Your task to perform on an android device: move an email to a new category in the gmail app Image 0: 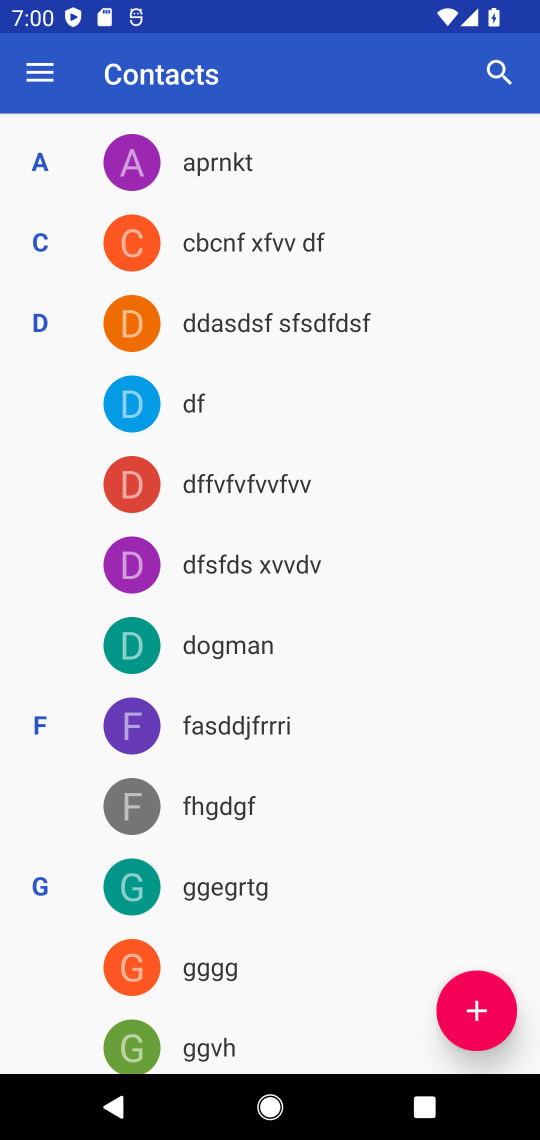
Step 0: press home button
Your task to perform on an android device: move an email to a new category in the gmail app Image 1: 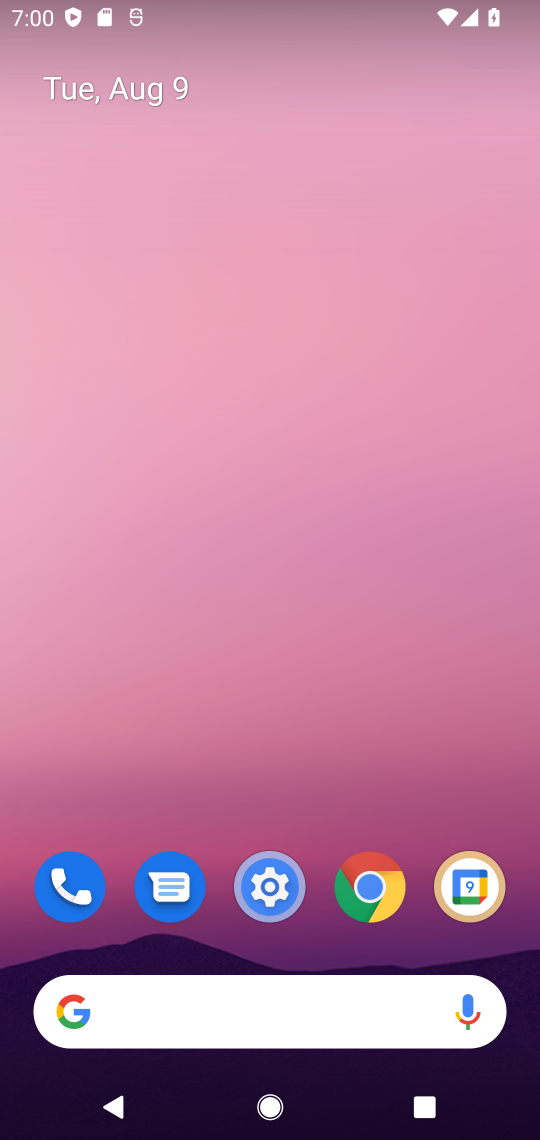
Step 1: drag from (278, 658) to (350, 17)
Your task to perform on an android device: move an email to a new category in the gmail app Image 2: 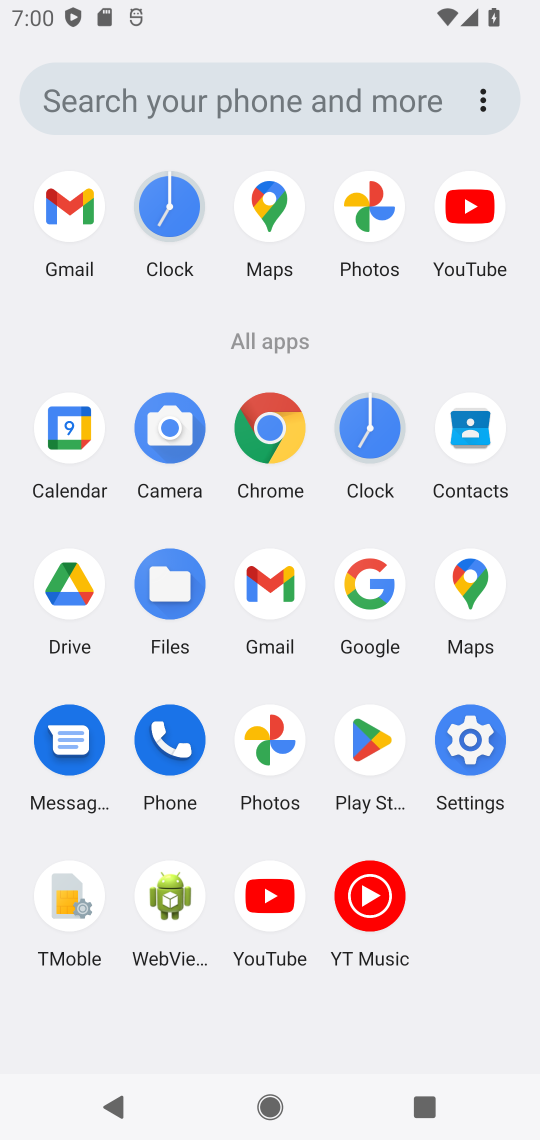
Step 2: click (69, 204)
Your task to perform on an android device: move an email to a new category in the gmail app Image 3: 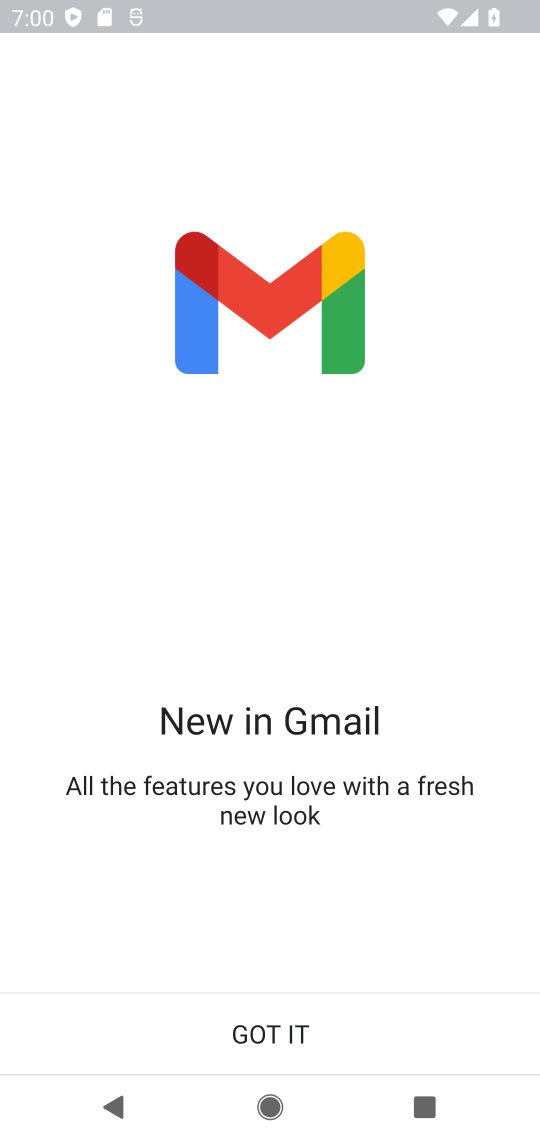
Step 3: click (278, 1016)
Your task to perform on an android device: move an email to a new category in the gmail app Image 4: 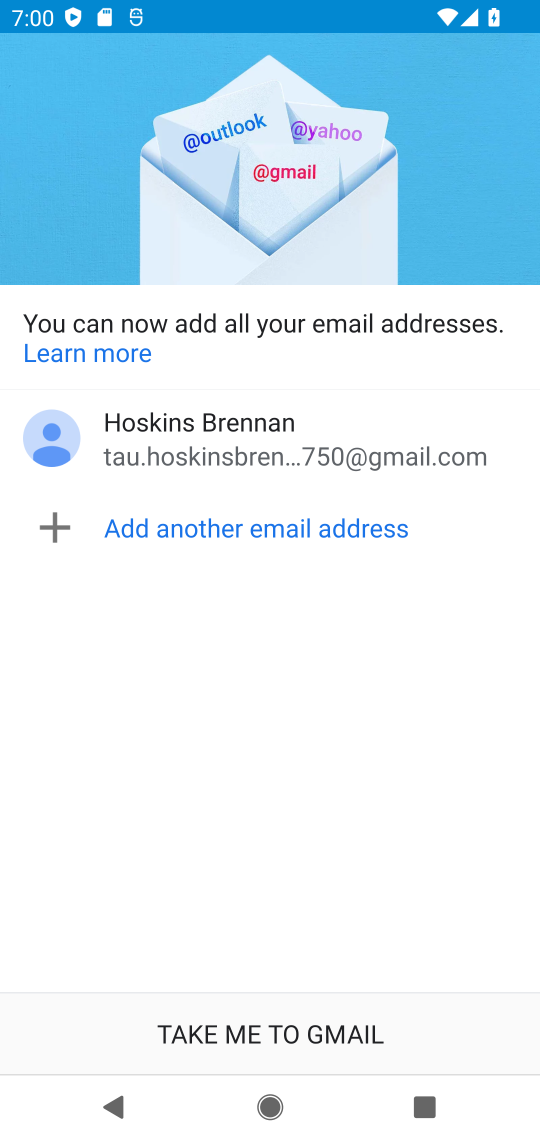
Step 4: click (282, 1025)
Your task to perform on an android device: move an email to a new category in the gmail app Image 5: 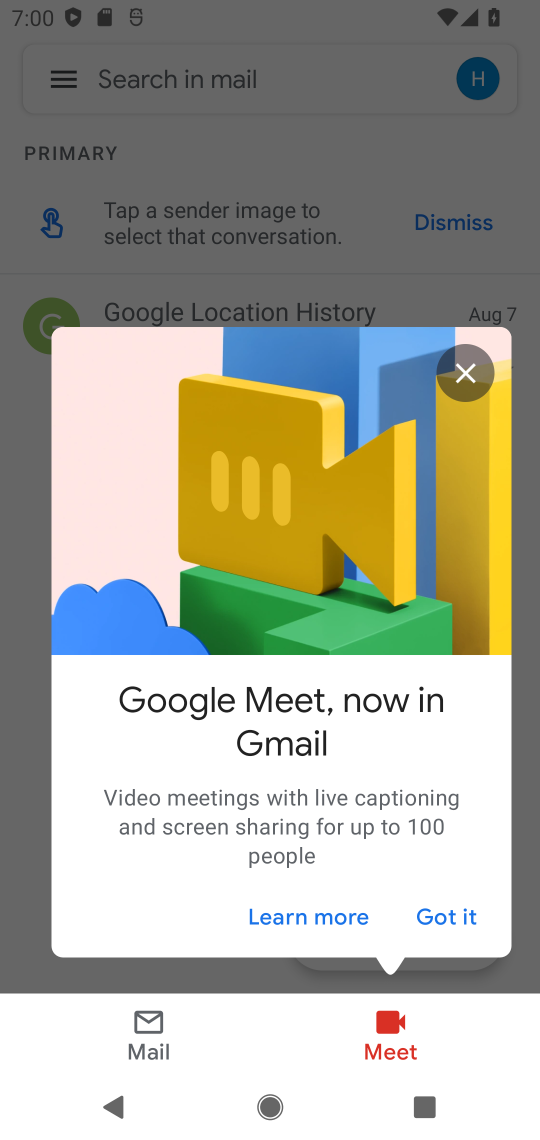
Step 5: click (428, 904)
Your task to perform on an android device: move an email to a new category in the gmail app Image 6: 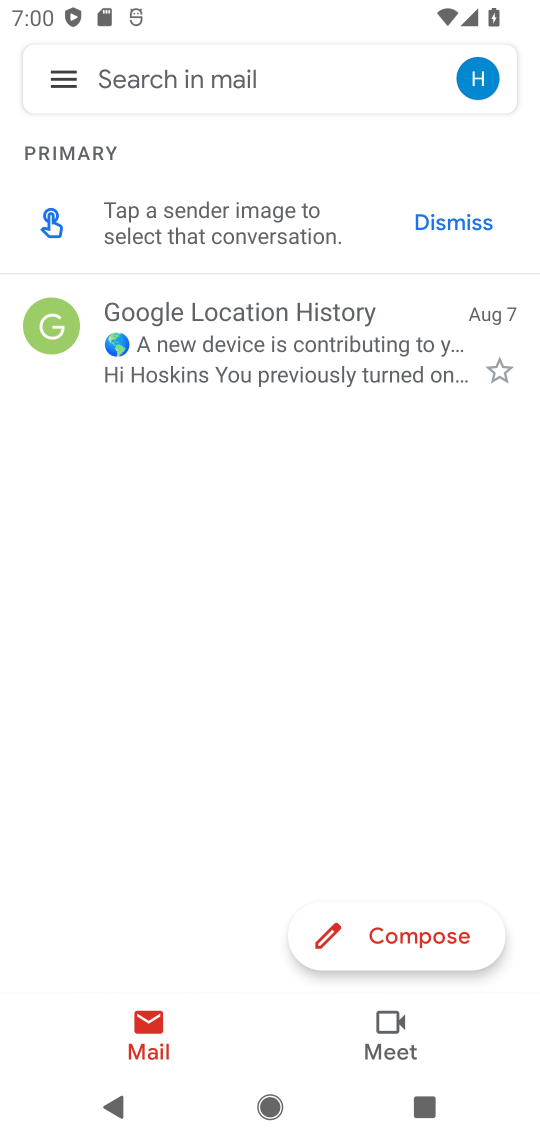
Step 6: click (267, 353)
Your task to perform on an android device: move an email to a new category in the gmail app Image 7: 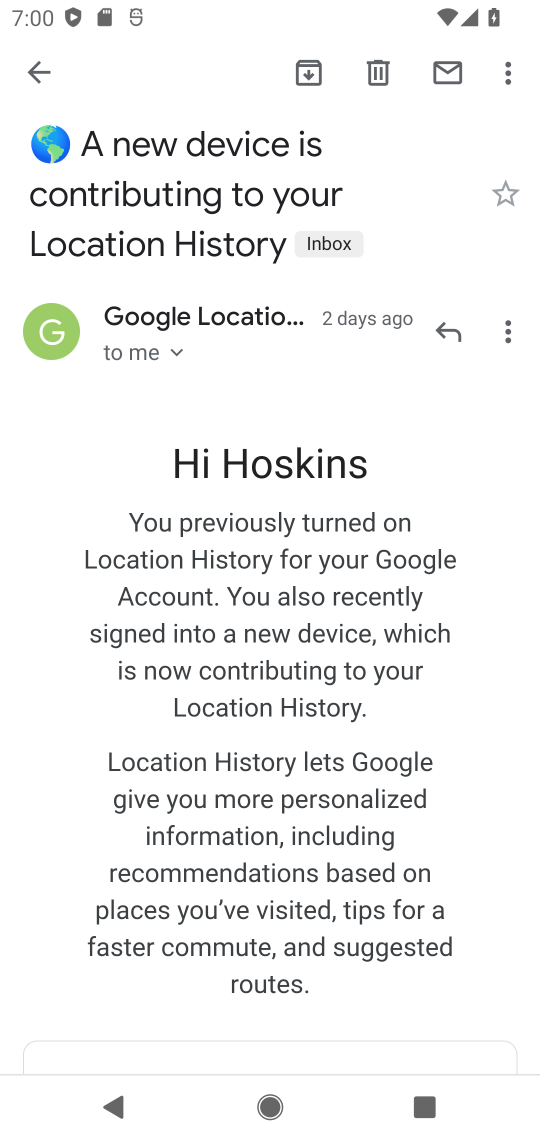
Step 7: click (512, 74)
Your task to perform on an android device: move an email to a new category in the gmail app Image 8: 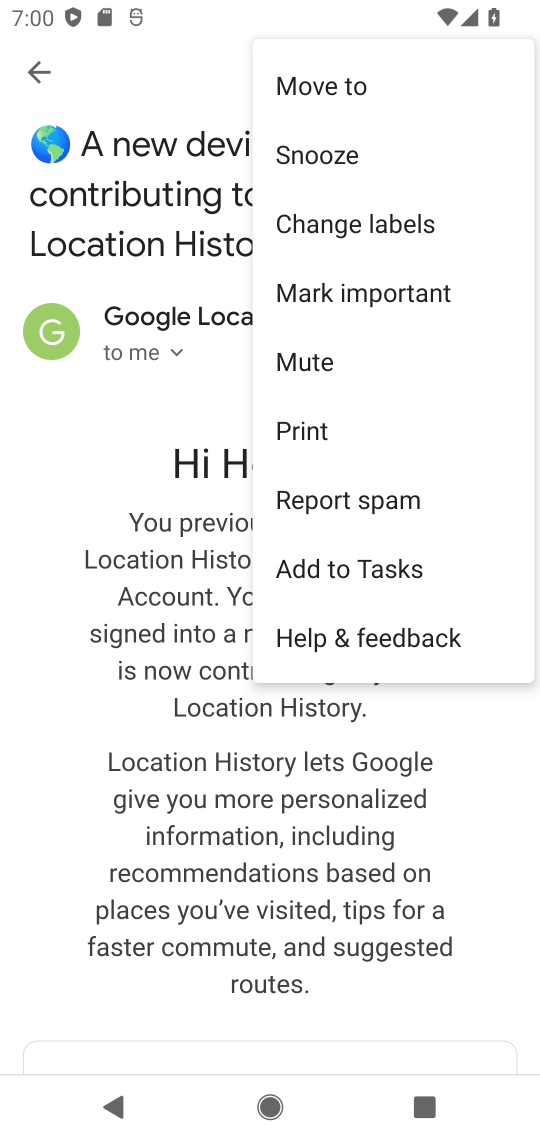
Step 8: click (506, 76)
Your task to perform on an android device: move an email to a new category in the gmail app Image 9: 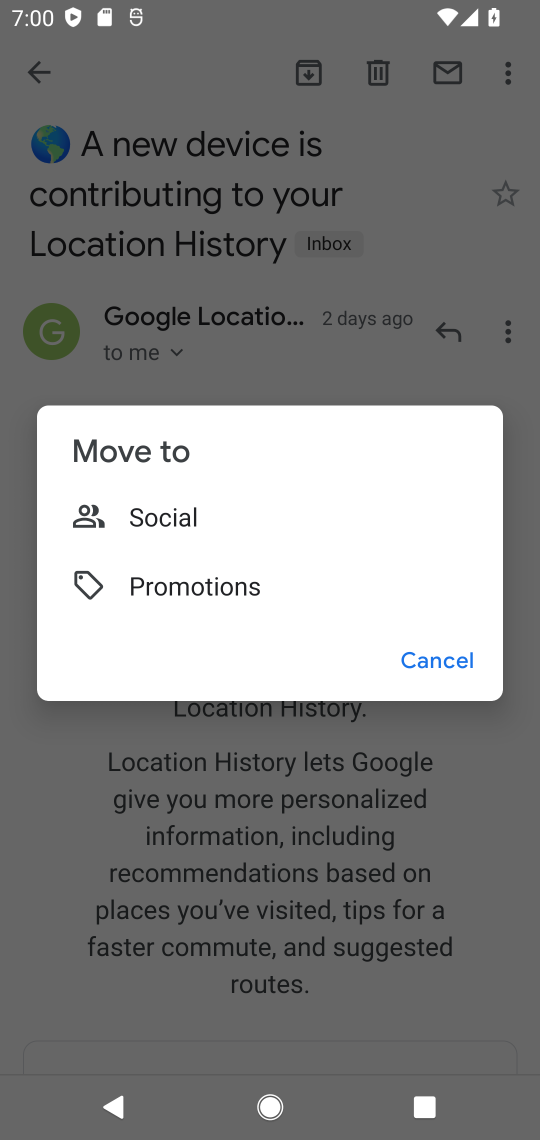
Step 9: click (255, 526)
Your task to perform on an android device: move an email to a new category in the gmail app Image 10: 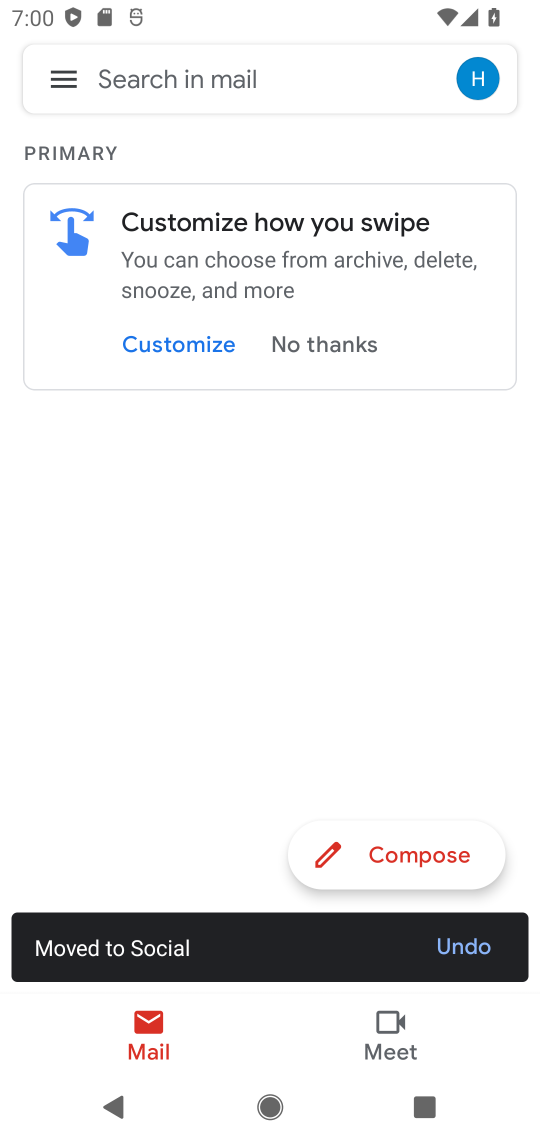
Step 10: task complete